Your task to perform on an android device: change the clock style Image 0: 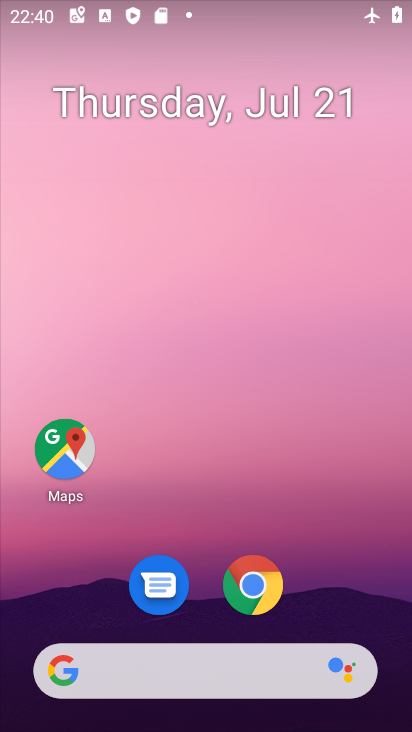
Step 0: drag from (321, 564) to (346, 37)
Your task to perform on an android device: change the clock style Image 1: 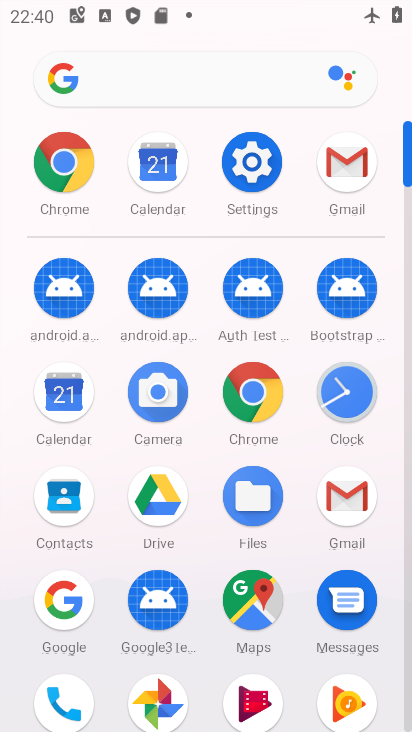
Step 1: click (344, 399)
Your task to perform on an android device: change the clock style Image 2: 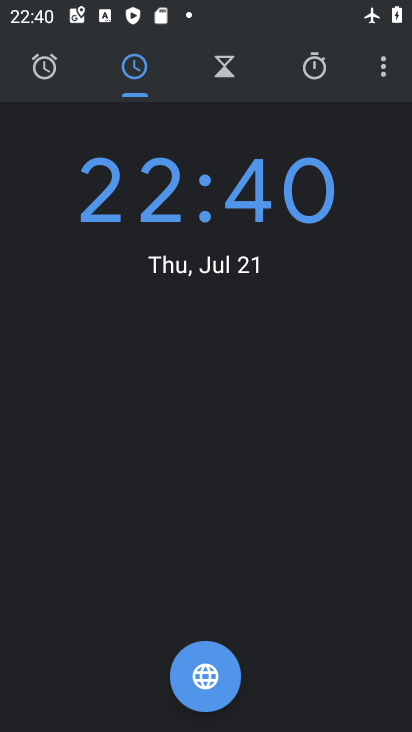
Step 2: click (379, 68)
Your task to perform on an android device: change the clock style Image 3: 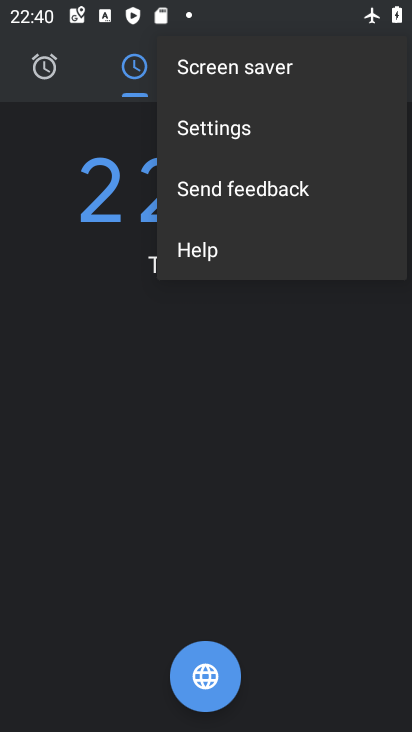
Step 3: click (258, 118)
Your task to perform on an android device: change the clock style Image 4: 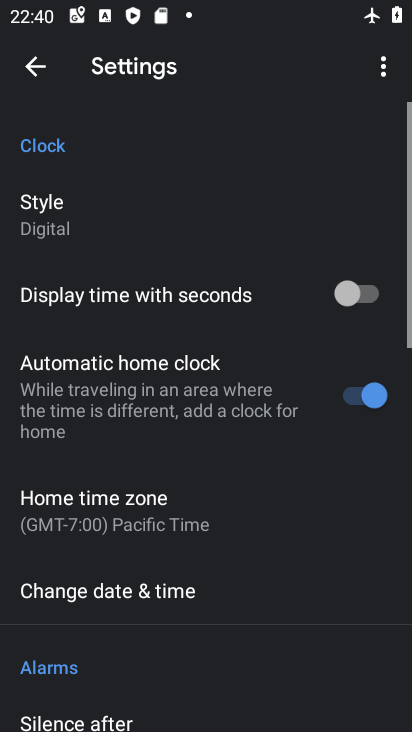
Step 4: click (73, 213)
Your task to perform on an android device: change the clock style Image 5: 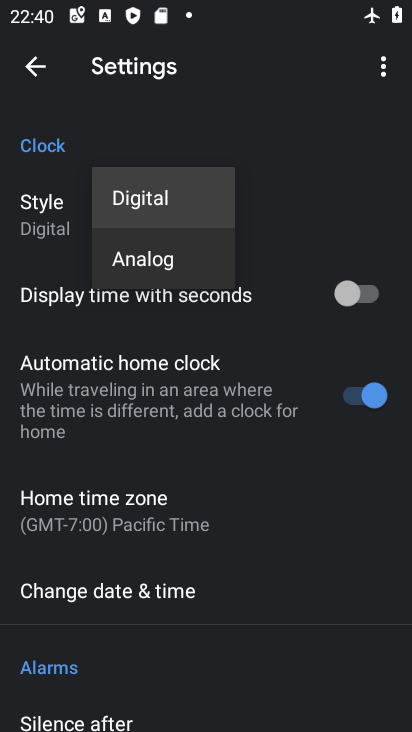
Step 5: click (166, 263)
Your task to perform on an android device: change the clock style Image 6: 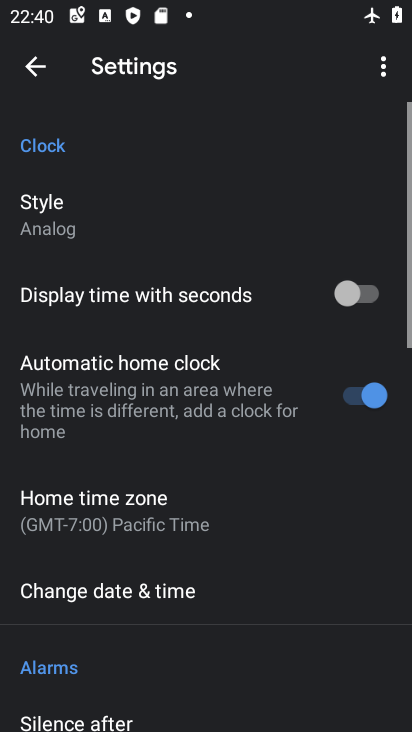
Step 6: click (36, 63)
Your task to perform on an android device: change the clock style Image 7: 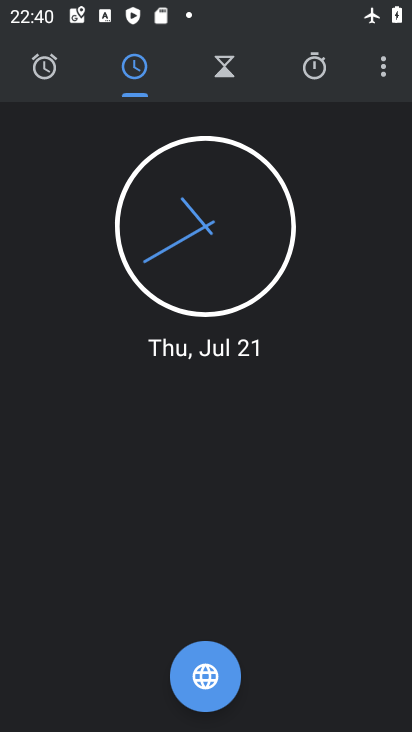
Step 7: task complete